Your task to perform on an android device: toggle improve location accuracy Image 0: 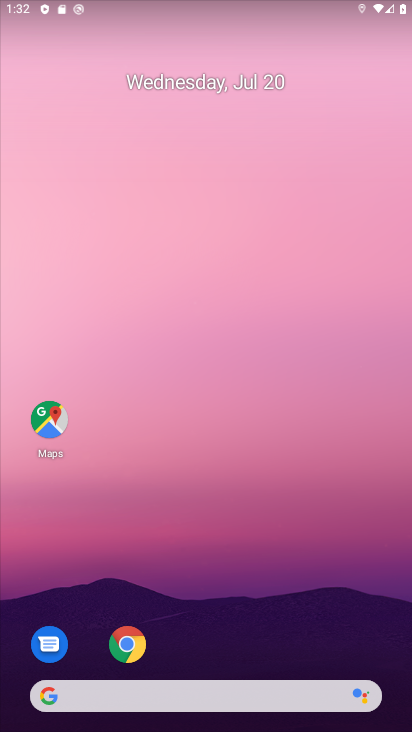
Step 0: drag from (291, 653) to (236, 113)
Your task to perform on an android device: toggle improve location accuracy Image 1: 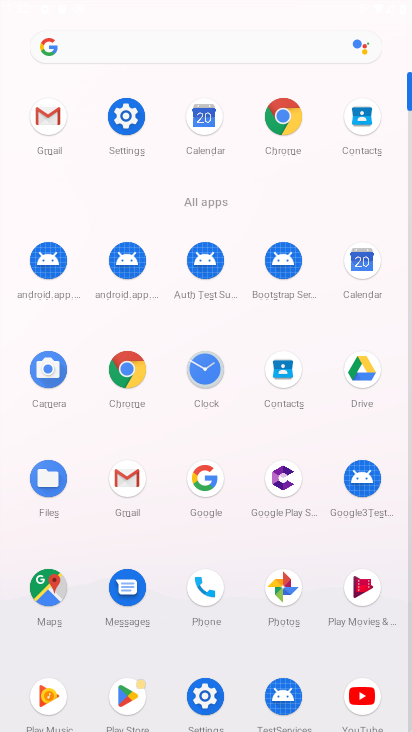
Step 1: click (137, 125)
Your task to perform on an android device: toggle improve location accuracy Image 2: 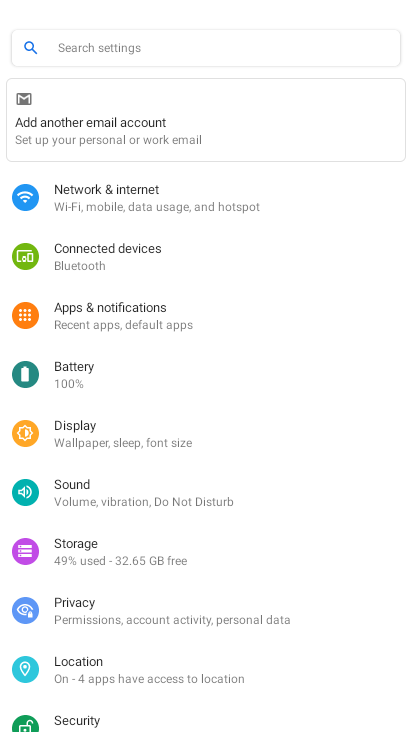
Step 2: click (98, 687)
Your task to perform on an android device: toggle improve location accuracy Image 3: 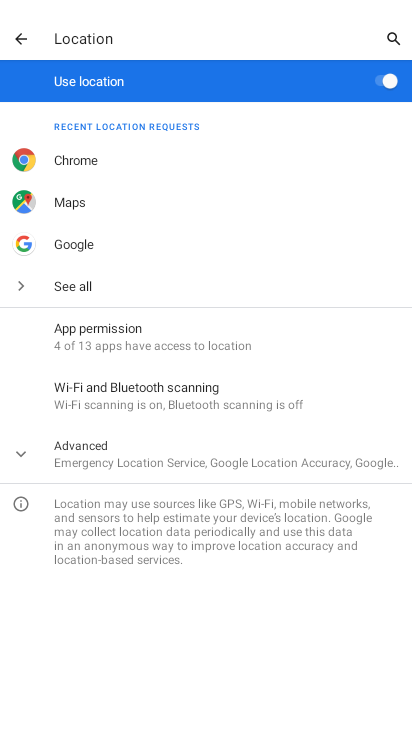
Step 3: click (219, 451)
Your task to perform on an android device: toggle improve location accuracy Image 4: 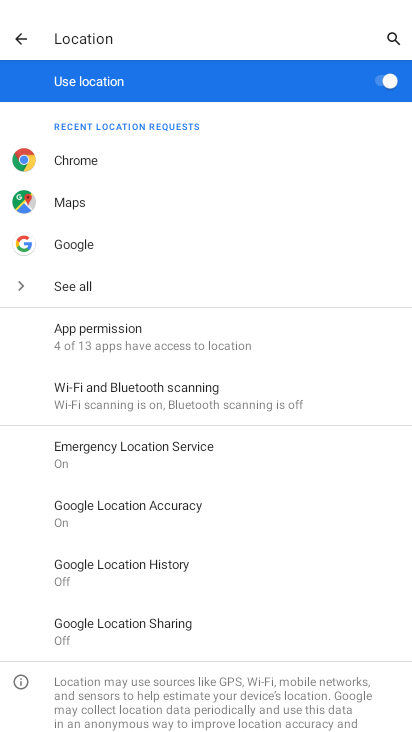
Step 4: click (154, 493)
Your task to perform on an android device: toggle improve location accuracy Image 5: 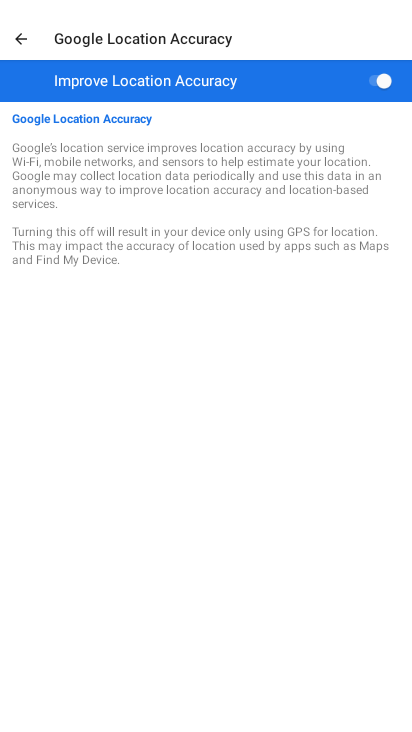
Step 5: click (388, 72)
Your task to perform on an android device: toggle improve location accuracy Image 6: 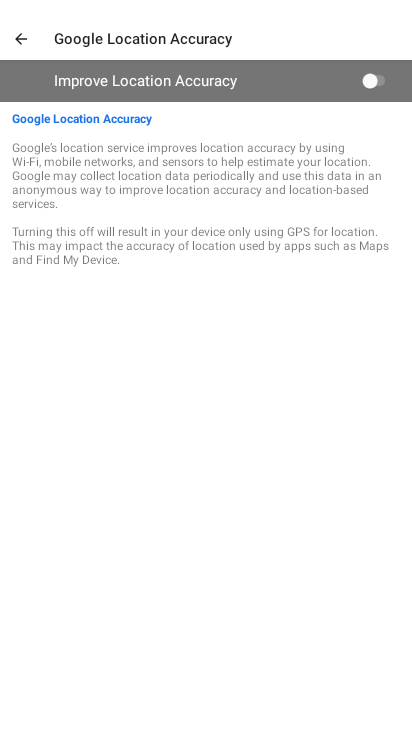
Step 6: task complete